Your task to perform on an android device: Is it going to rain this weekend? Image 0: 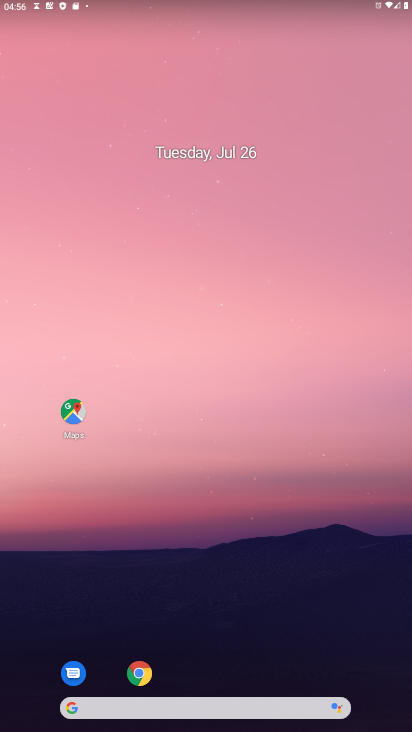
Step 0: drag from (164, 706) to (133, 169)
Your task to perform on an android device: Is it going to rain this weekend? Image 1: 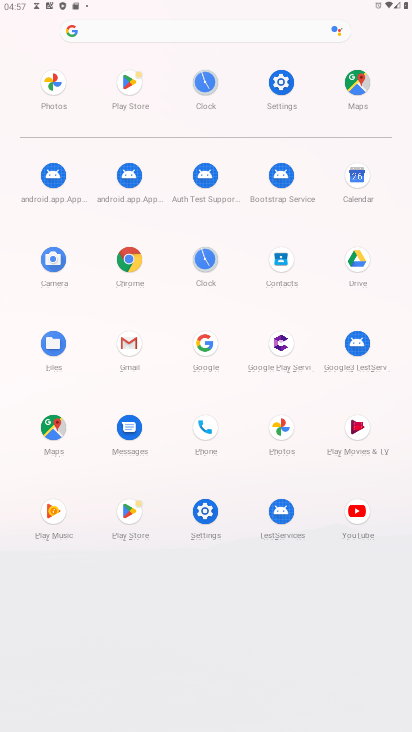
Step 1: click (205, 340)
Your task to perform on an android device: Is it going to rain this weekend? Image 2: 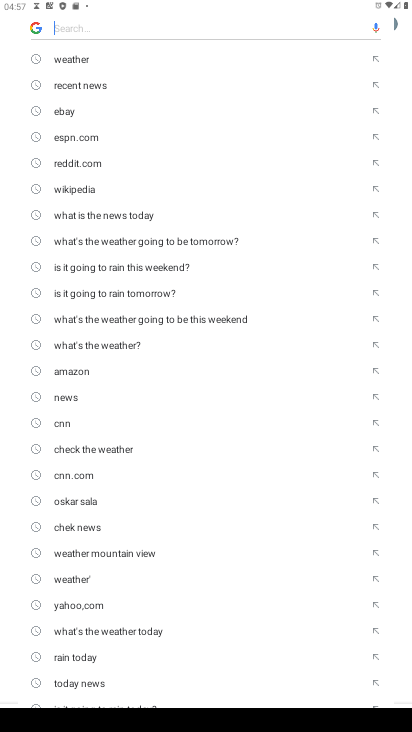
Step 2: click (226, 27)
Your task to perform on an android device: Is it going to rain this weekend? Image 3: 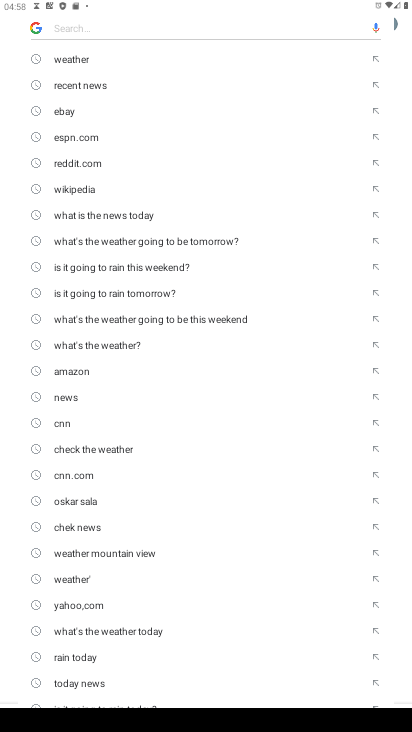
Step 3: type "Is it going to rain this weekend?"
Your task to perform on an android device: Is it going to rain this weekend? Image 4: 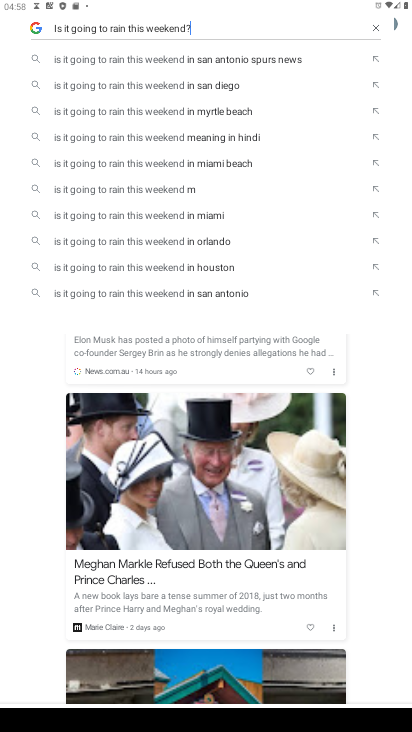
Step 4: click (162, 91)
Your task to perform on an android device: Is it going to rain this weekend? Image 5: 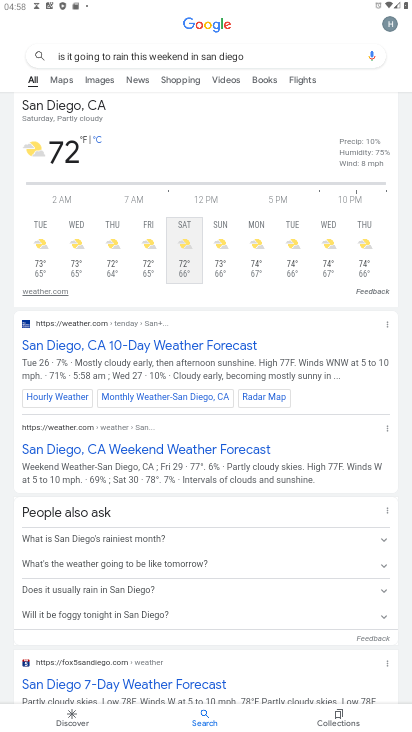
Step 5: task complete